Your task to perform on an android device: Search for Italian restaurants on Maps Image 0: 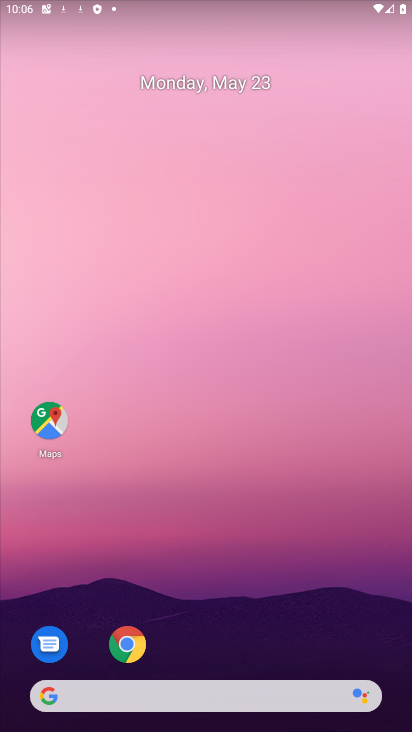
Step 0: drag from (266, 714) to (183, 118)
Your task to perform on an android device: Search for Italian restaurants on Maps Image 1: 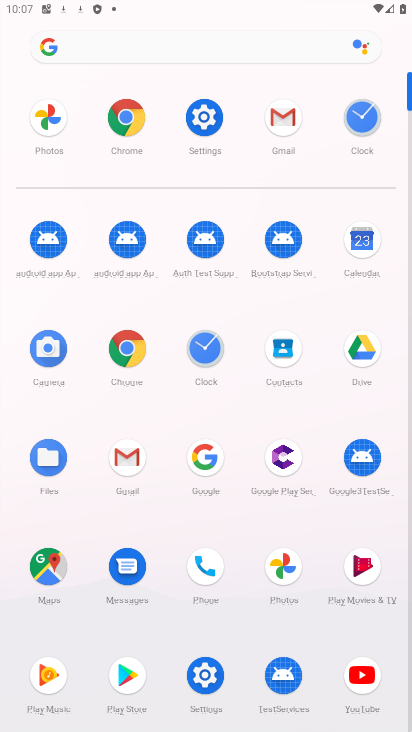
Step 1: click (50, 570)
Your task to perform on an android device: Search for Italian restaurants on Maps Image 2: 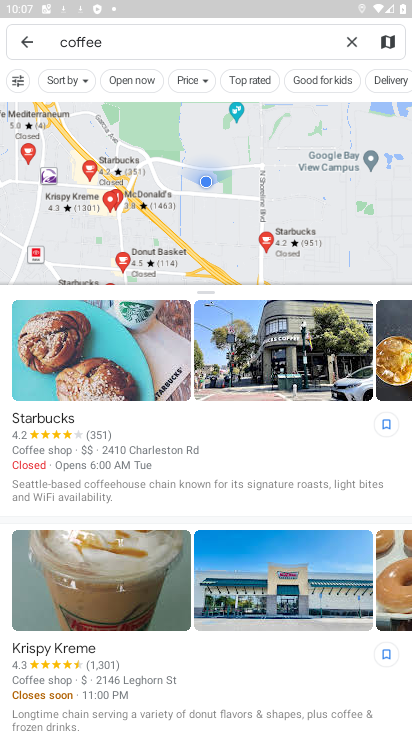
Step 2: click (350, 40)
Your task to perform on an android device: Search for Italian restaurants on Maps Image 3: 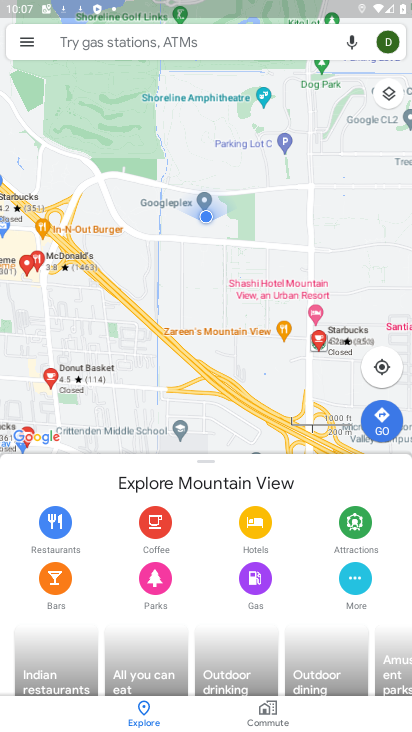
Step 3: click (188, 44)
Your task to perform on an android device: Search for Italian restaurants on Maps Image 4: 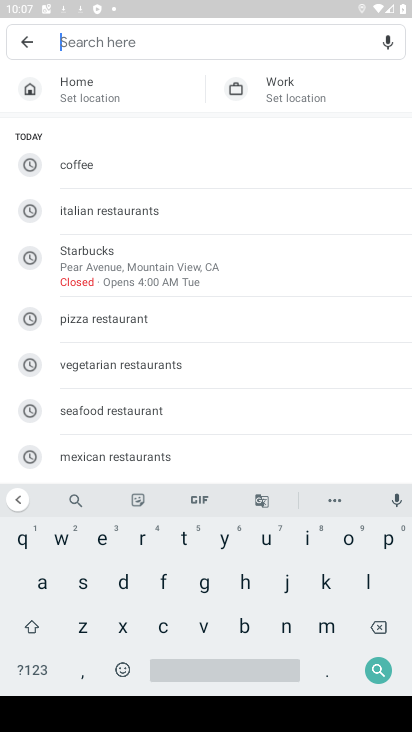
Step 4: click (118, 216)
Your task to perform on an android device: Search for Italian restaurants on Maps Image 5: 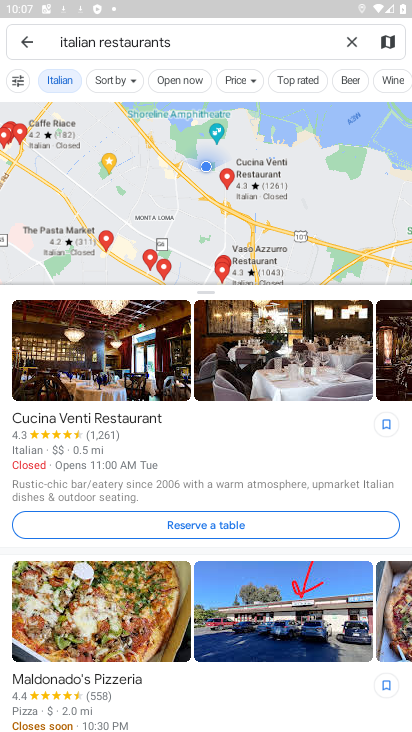
Step 5: click (208, 222)
Your task to perform on an android device: Search for Italian restaurants on Maps Image 6: 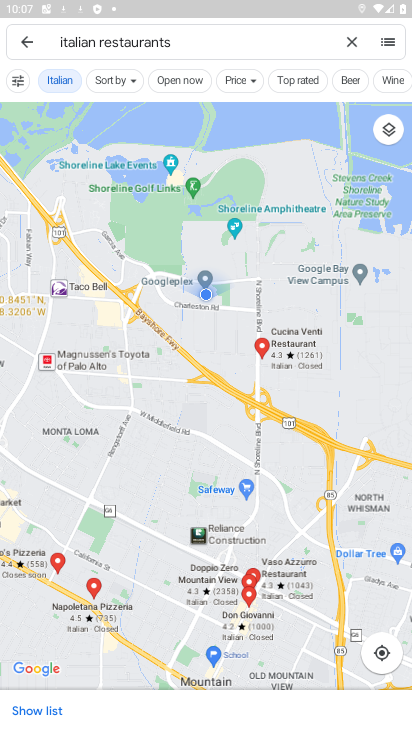
Step 6: task complete